Your task to perform on an android device: Open calendar and show me the fourth week of next month Image 0: 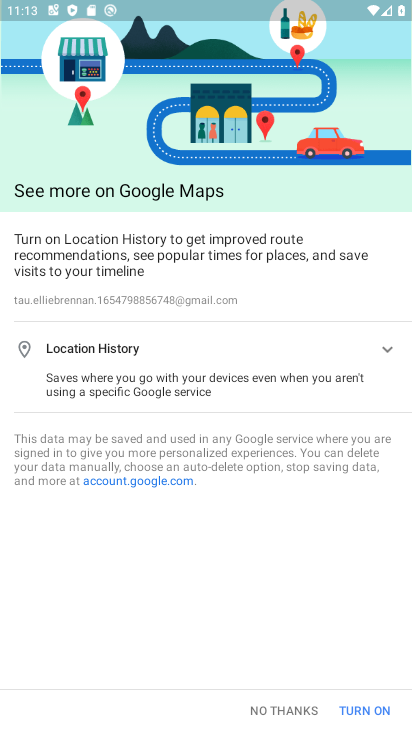
Step 0: press home button
Your task to perform on an android device: Open calendar and show me the fourth week of next month Image 1: 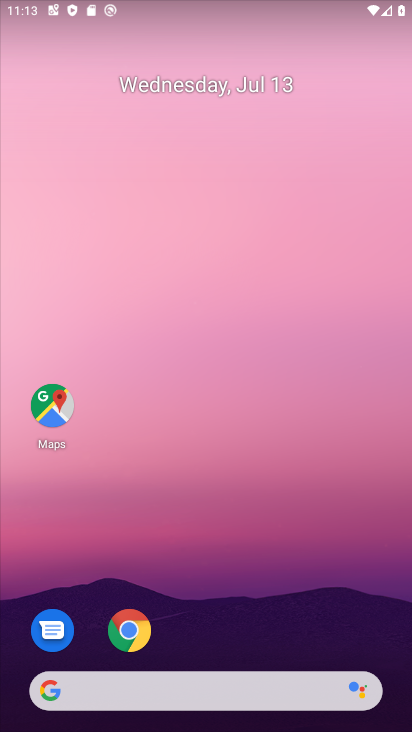
Step 1: drag from (301, 616) to (315, 101)
Your task to perform on an android device: Open calendar and show me the fourth week of next month Image 2: 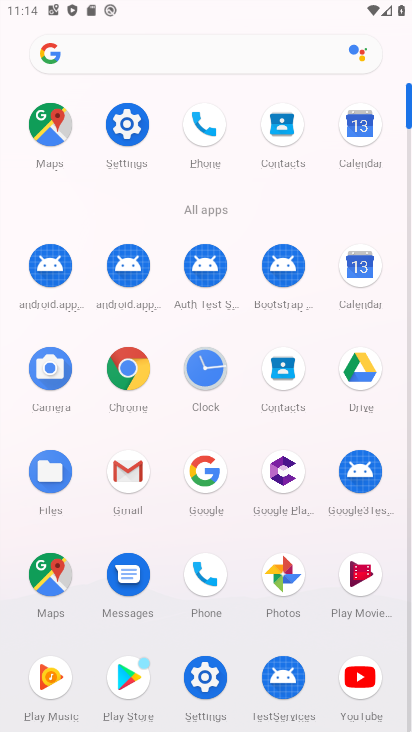
Step 2: click (361, 274)
Your task to perform on an android device: Open calendar and show me the fourth week of next month Image 3: 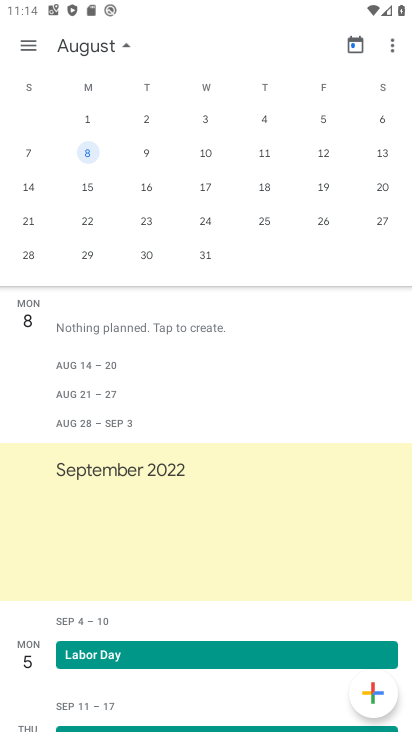
Step 3: click (83, 224)
Your task to perform on an android device: Open calendar and show me the fourth week of next month Image 4: 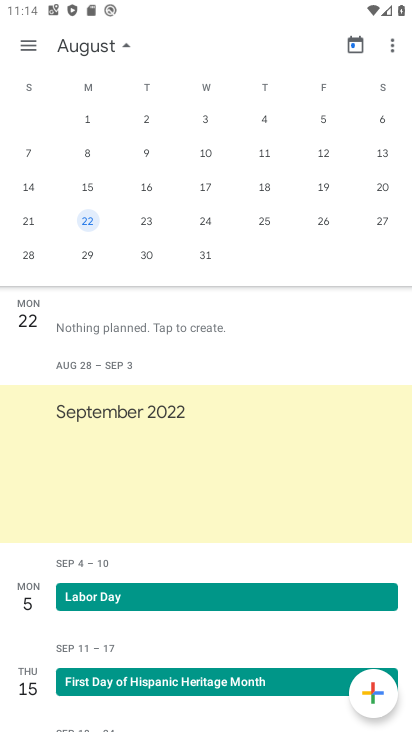
Step 4: task complete